Your task to perform on an android device: change keyboard looks Image 0: 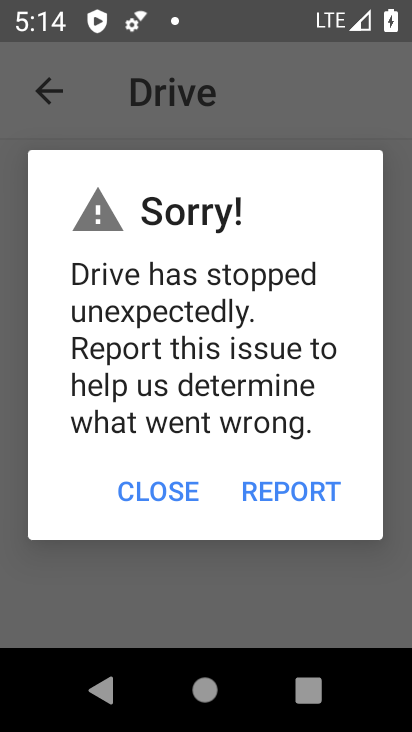
Step 0: press back button
Your task to perform on an android device: change keyboard looks Image 1: 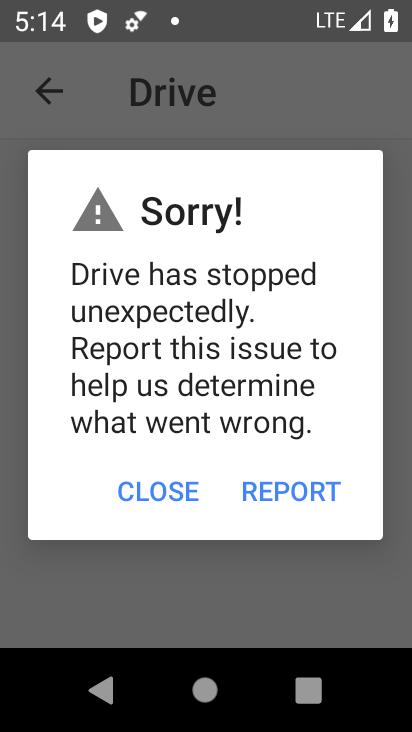
Step 1: press back button
Your task to perform on an android device: change keyboard looks Image 2: 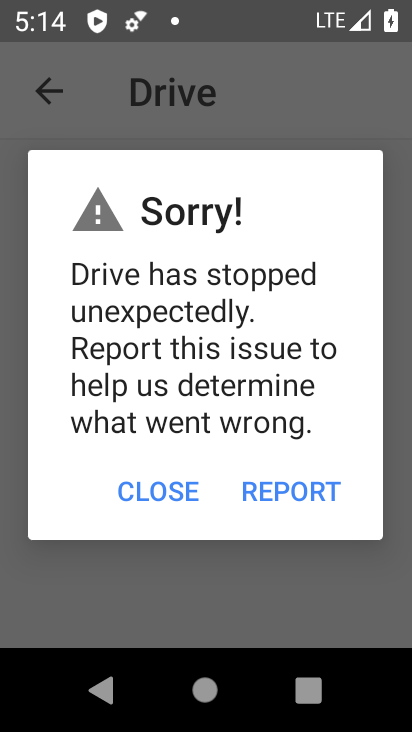
Step 2: press back button
Your task to perform on an android device: change keyboard looks Image 3: 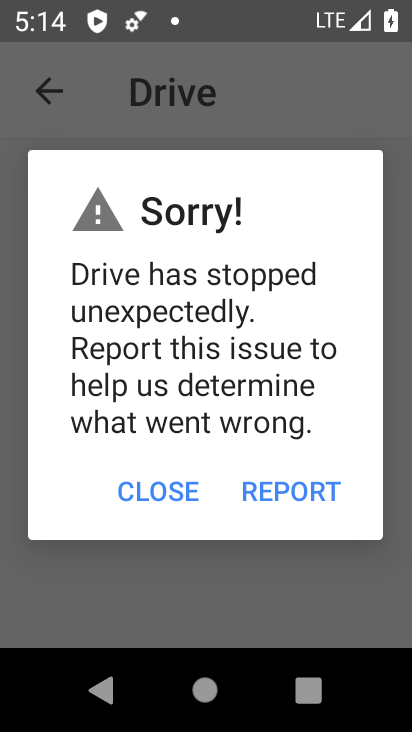
Step 3: press home button
Your task to perform on an android device: change keyboard looks Image 4: 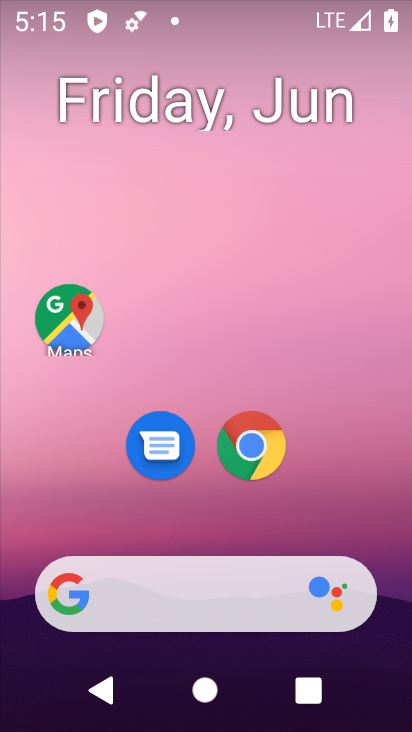
Step 4: drag from (381, 635) to (300, 41)
Your task to perform on an android device: change keyboard looks Image 5: 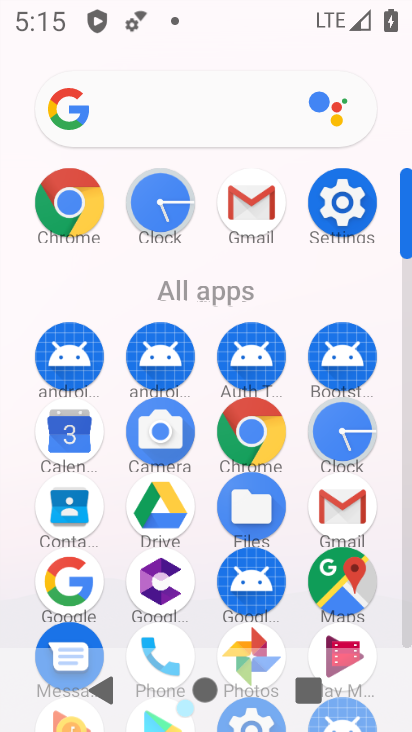
Step 5: drag from (0, 514) to (16, 220)
Your task to perform on an android device: change keyboard looks Image 6: 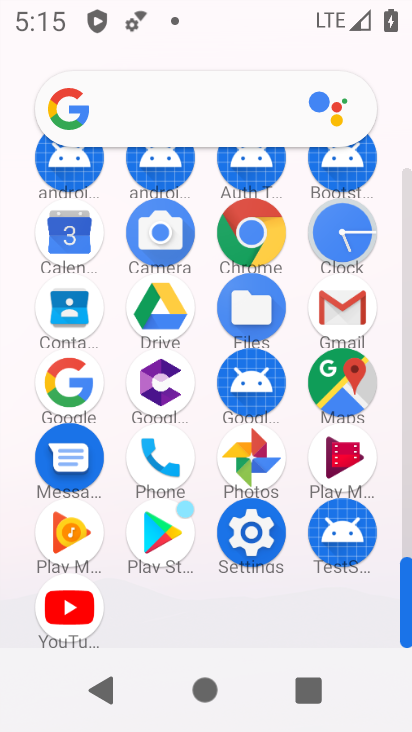
Step 6: click (253, 530)
Your task to perform on an android device: change keyboard looks Image 7: 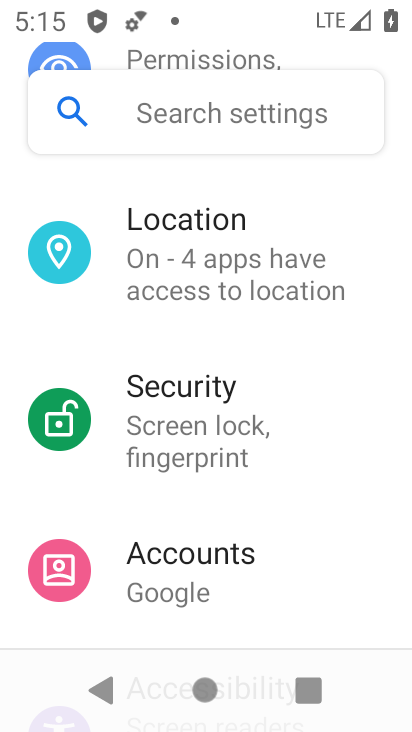
Step 7: drag from (312, 596) to (340, 172)
Your task to perform on an android device: change keyboard looks Image 8: 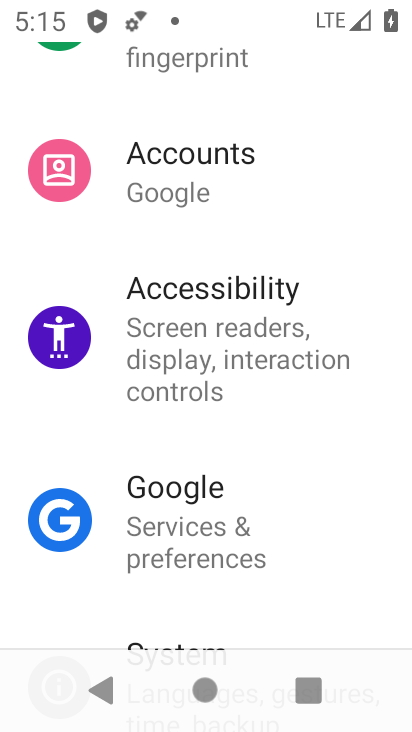
Step 8: drag from (353, 543) to (349, 118)
Your task to perform on an android device: change keyboard looks Image 9: 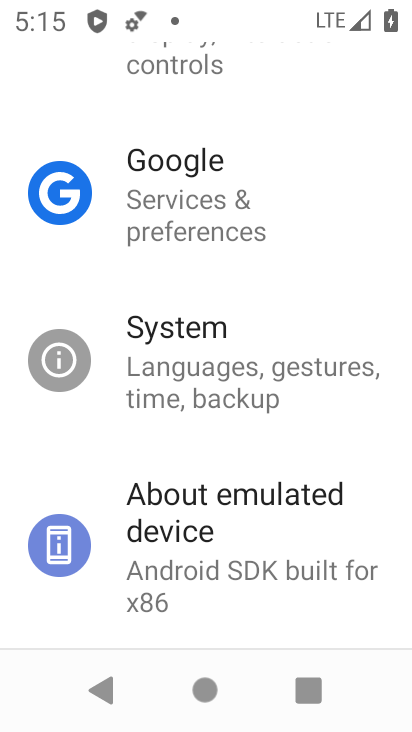
Step 9: click (238, 340)
Your task to perform on an android device: change keyboard looks Image 10: 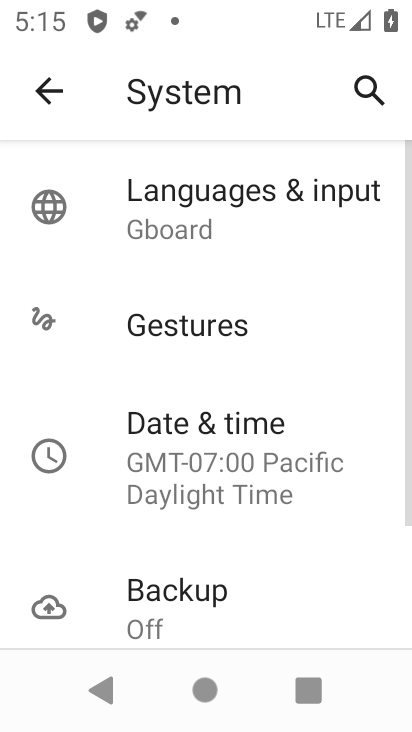
Step 10: drag from (301, 579) to (313, 164)
Your task to perform on an android device: change keyboard looks Image 11: 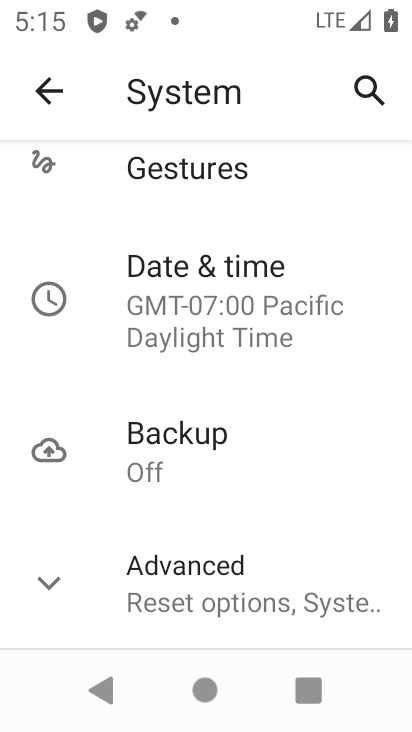
Step 11: drag from (297, 150) to (303, 529)
Your task to perform on an android device: change keyboard looks Image 12: 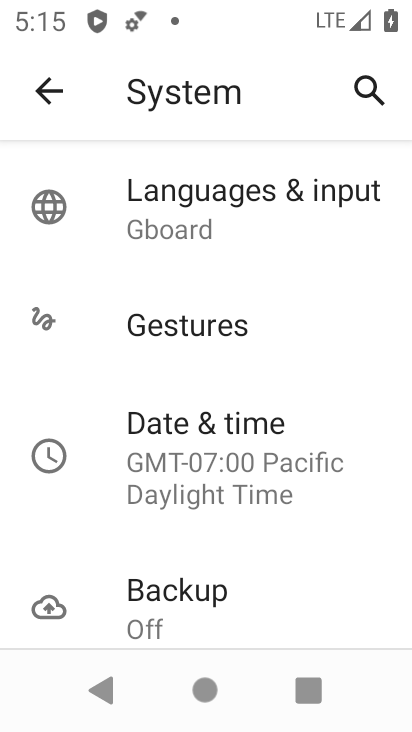
Step 12: drag from (300, 272) to (299, 566)
Your task to perform on an android device: change keyboard looks Image 13: 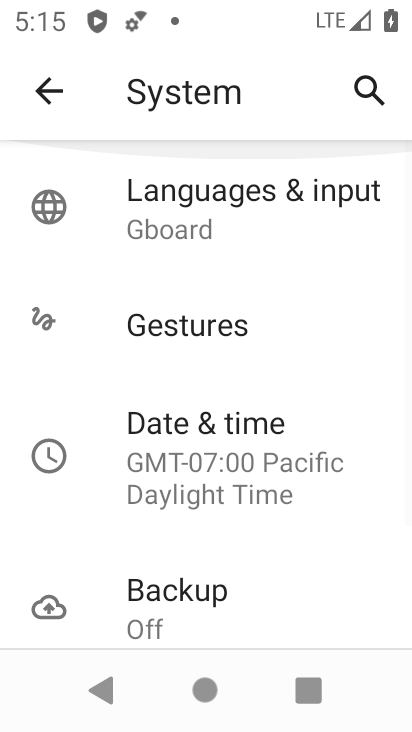
Step 13: click (236, 219)
Your task to perform on an android device: change keyboard looks Image 14: 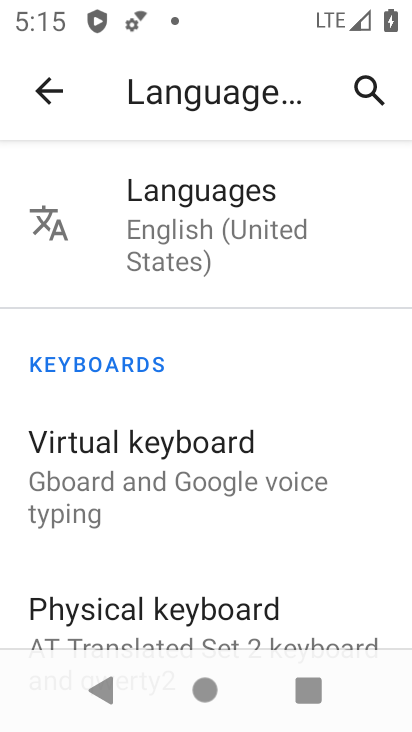
Step 14: click (191, 453)
Your task to perform on an android device: change keyboard looks Image 15: 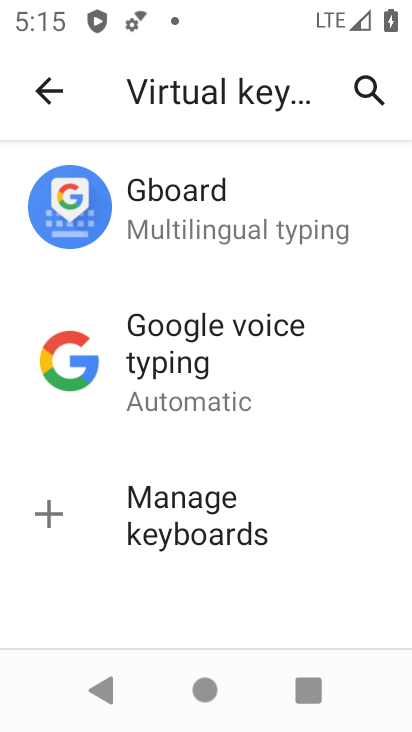
Step 15: click (295, 191)
Your task to perform on an android device: change keyboard looks Image 16: 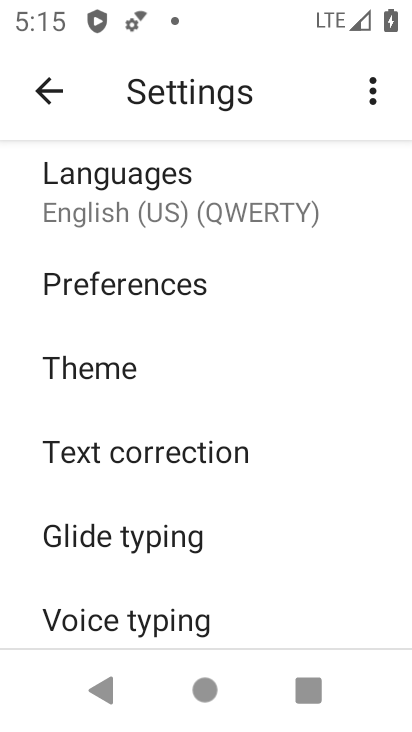
Step 16: click (127, 363)
Your task to perform on an android device: change keyboard looks Image 17: 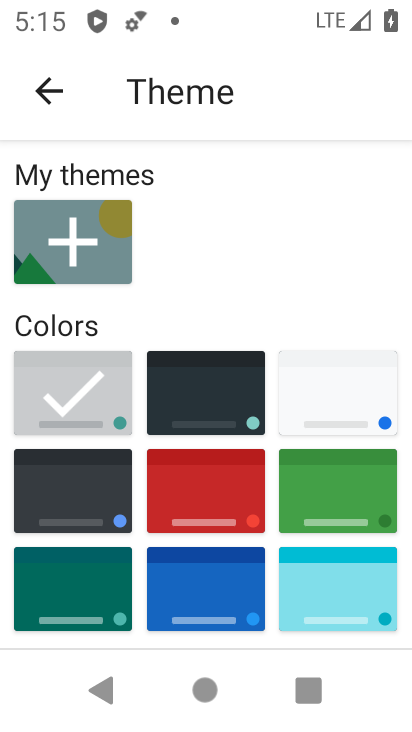
Step 17: click (168, 399)
Your task to perform on an android device: change keyboard looks Image 18: 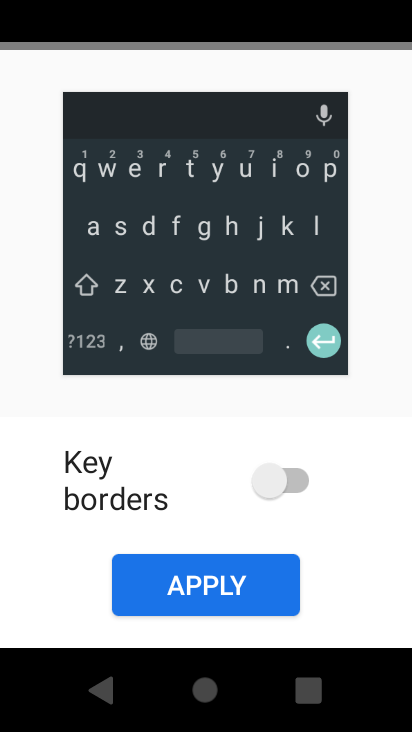
Step 18: click (221, 570)
Your task to perform on an android device: change keyboard looks Image 19: 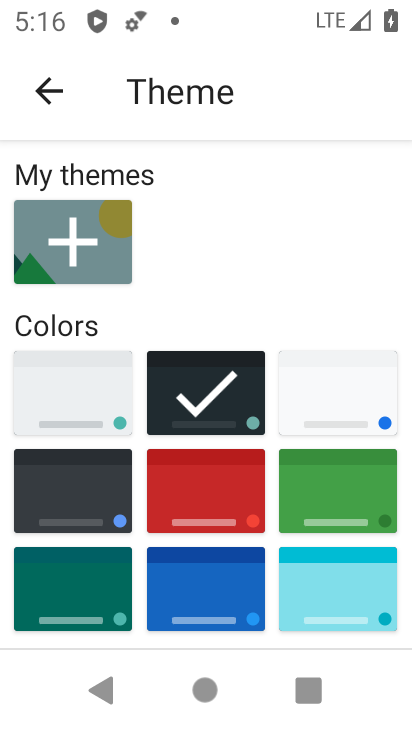
Step 19: task complete